Your task to perform on an android device: change the clock display to show seconds Image 0: 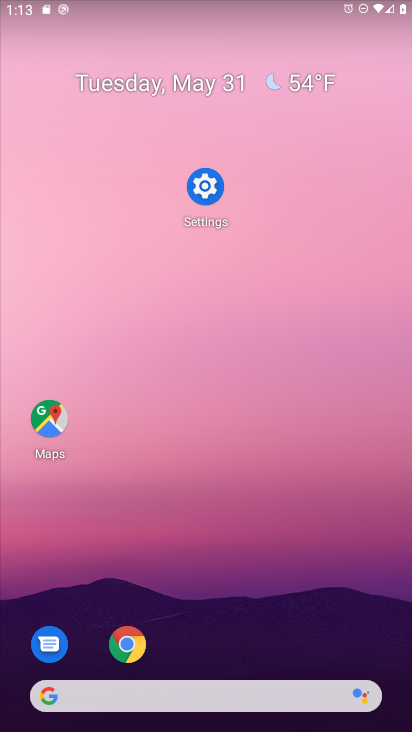
Step 0: drag from (304, 636) to (306, 113)
Your task to perform on an android device: change the clock display to show seconds Image 1: 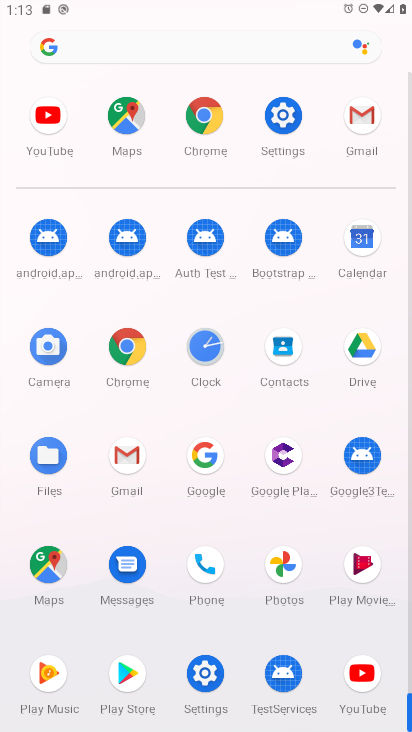
Step 1: click (212, 350)
Your task to perform on an android device: change the clock display to show seconds Image 2: 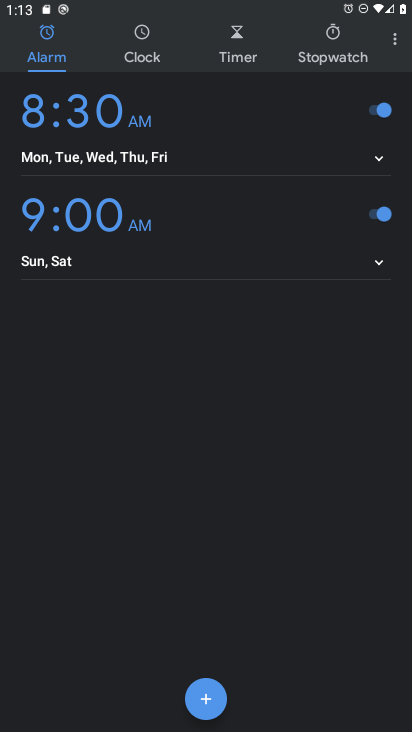
Step 2: click (401, 51)
Your task to perform on an android device: change the clock display to show seconds Image 3: 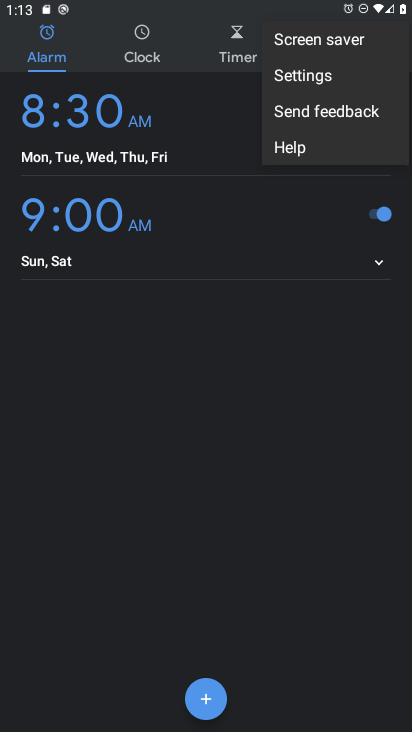
Step 3: click (304, 75)
Your task to perform on an android device: change the clock display to show seconds Image 4: 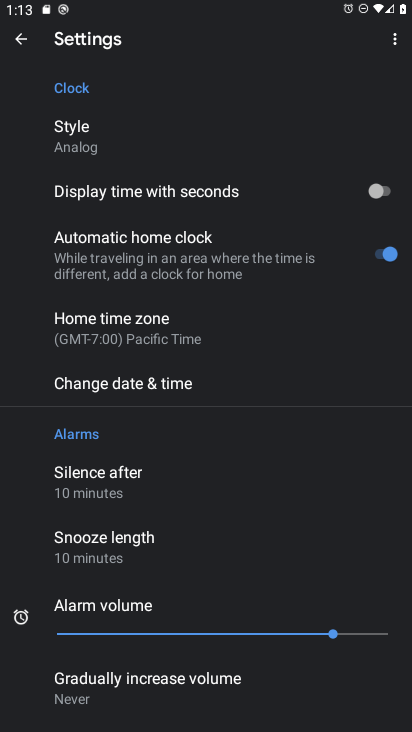
Step 4: click (378, 190)
Your task to perform on an android device: change the clock display to show seconds Image 5: 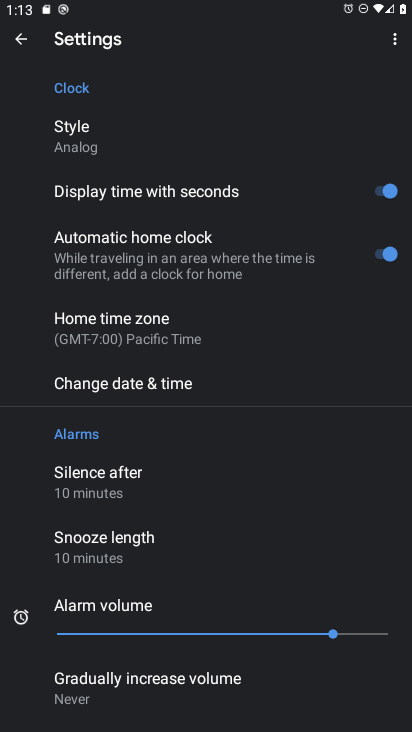
Step 5: task complete